Your task to perform on an android device: Open calendar and show me the first week of next month Image 0: 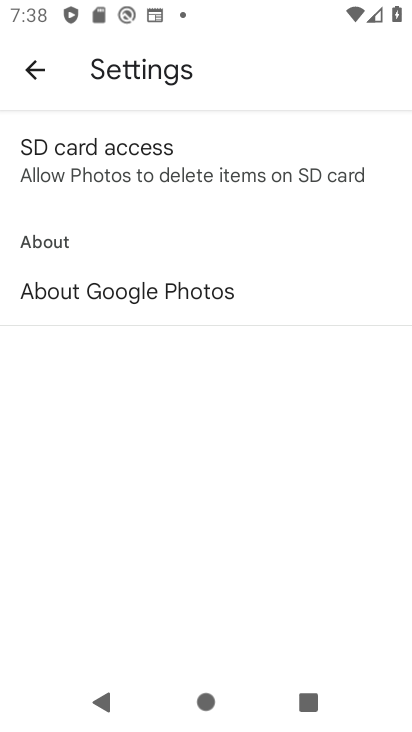
Step 0: press home button
Your task to perform on an android device: Open calendar and show me the first week of next month Image 1: 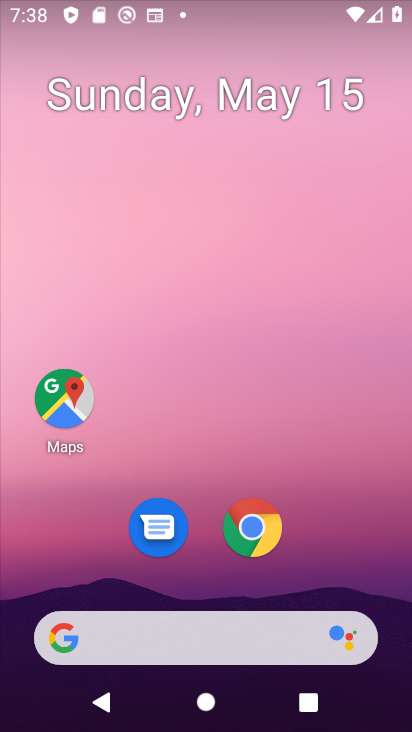
Step 1: drag from (250, 639) to (370, 179)
Your task to perform on an android device: Open calendar and show me the first week of next month Image 2: 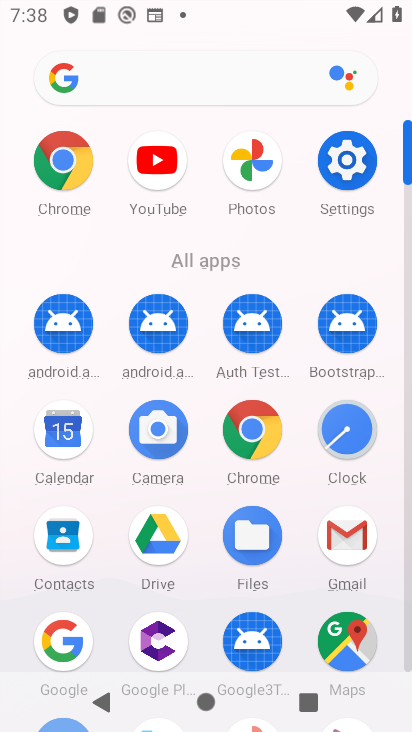
Step 2: click (59, 446)
Your task to perform on an android device: Open calendar and show me the first week of next month Image 3: 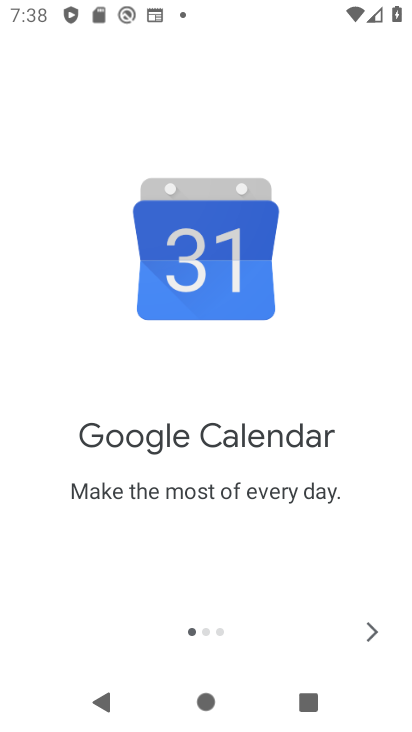
Step 3: click (368, 635)
Your task to perform on an android device: Open calendar and show me the first week of next month Image 4: 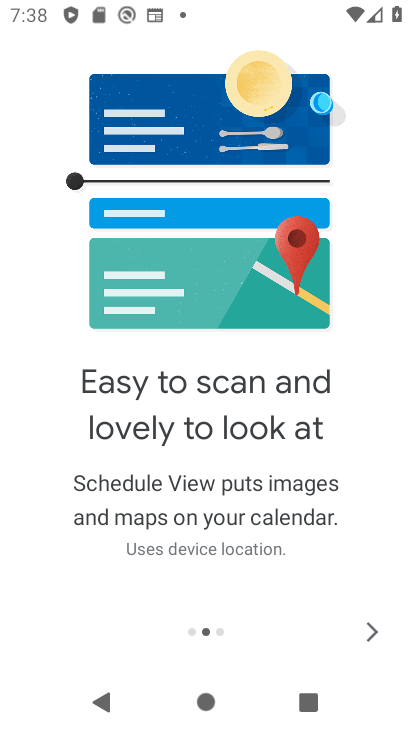
Step 4: click (368, 635)
Your task to perform on an android device: Open calendar and show me the first week of next month Image 5: 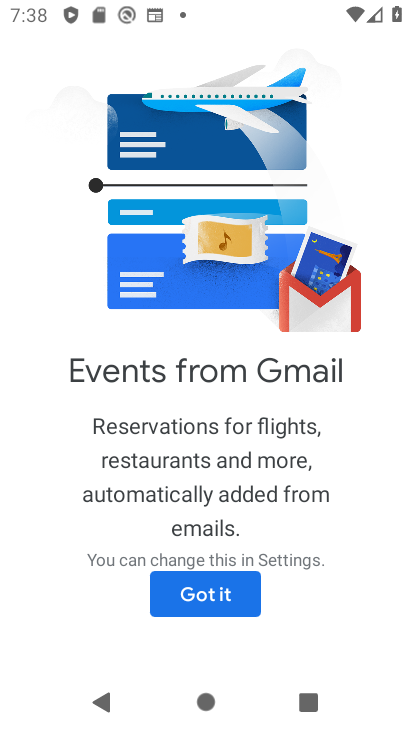
Step 5: click (217, 594)
Your task to perform on an android device: Open calendar and show me the first week of next month Image 6: 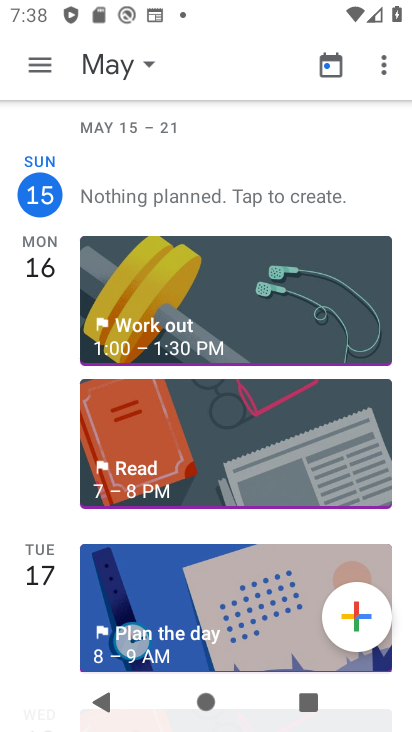
Step 6: click (106, 72)
Your task to perform on an android device: Open calendar and show me the first week of next month Image 7: 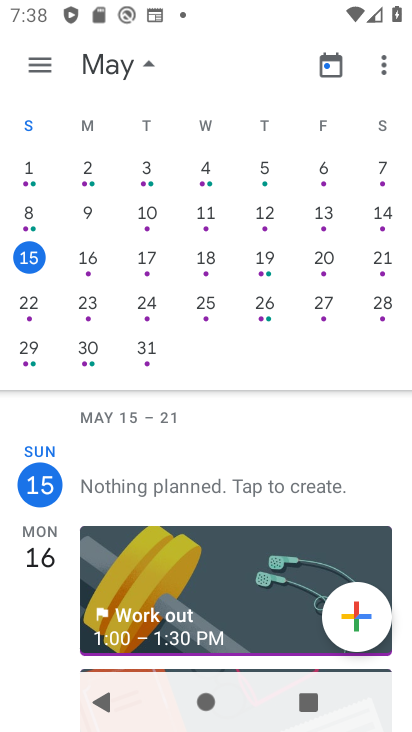
Step 7: drag from (378, 276) to (0, 244)
Your task to perform on an android device: Open calendar and show me the first week of next month Image 8: 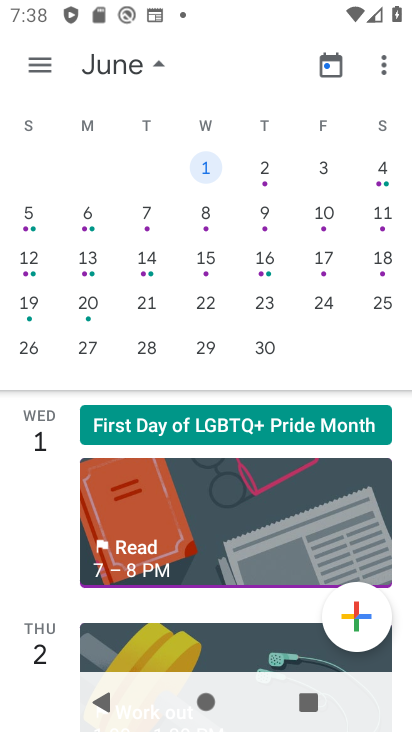
Step 8: click (207, 161)
Your task to perform on an android device: Open calendar and show me the first week of next month Image 9: 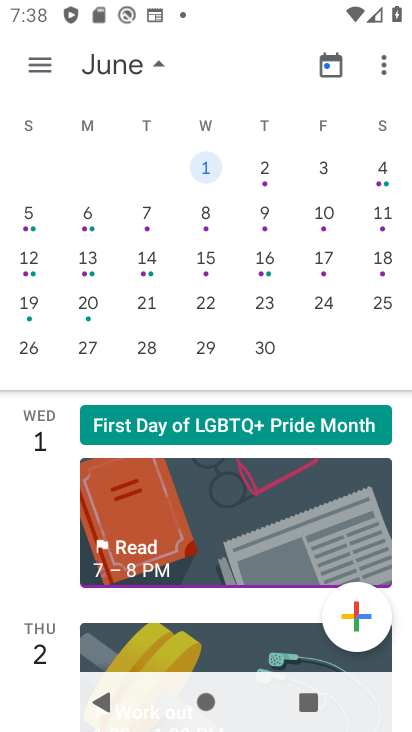
Step 9: click (33, 60)
Your task to perform on an android device: Open calendar and show me the first week of next month Image 10: 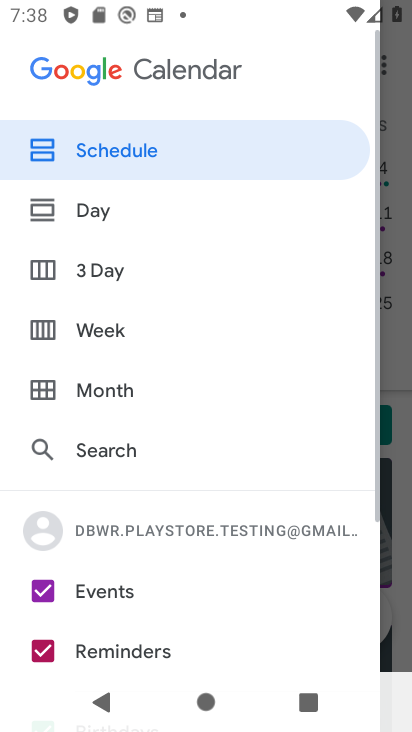
Step 10: click (122, 324)
Your task to perform on an android device: Open calendar and show me the first week of next month Image 11: 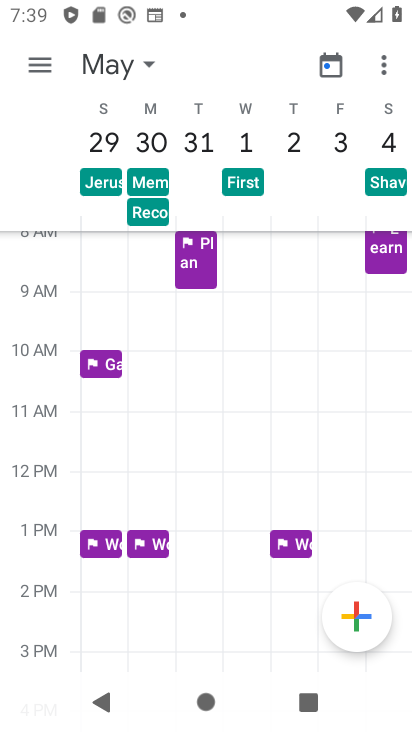
Step 11: task complete